Your task to perform on an android device: Set an alarm for 9am Image 0: 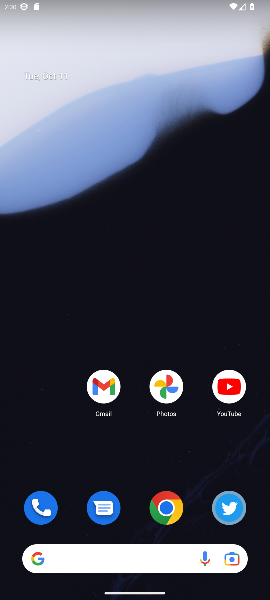
Step 0: drag from (209, 462) to (166, 240)
Your task to perform on an android device: Set an alarm for 9am Image 1: 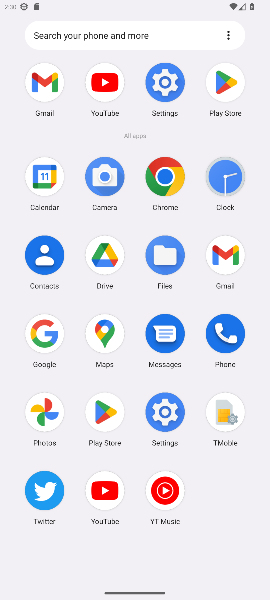
Step 1: click (225, 179)
Your task to perform on an android device: Set an alarm for 9am Image 2: 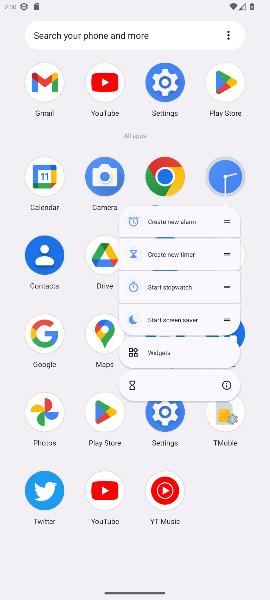
Step 2: click (226, 179)
Your task to perform on an android device: Set an alarm for 9am Image 3: 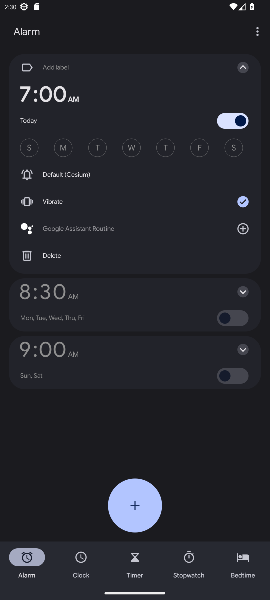
Step 3: click (136, 505)
Your task to perform on an android device: Set an alarm for 9am Image 4: 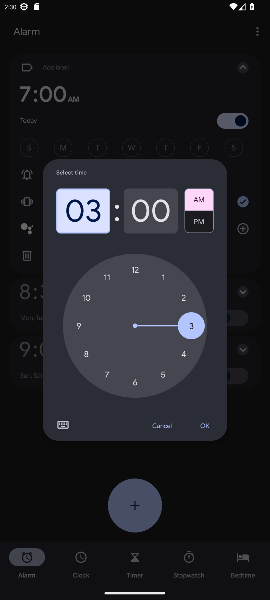
Step 4: click (81, 324)
Your task to perform on an android device: Set an alarm for 9am Image 5: 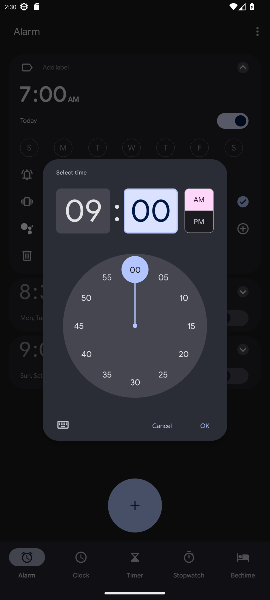
Step 5: click (206, 427)
Your task to perform on an android device: Set an alarm for 9am Image 6: 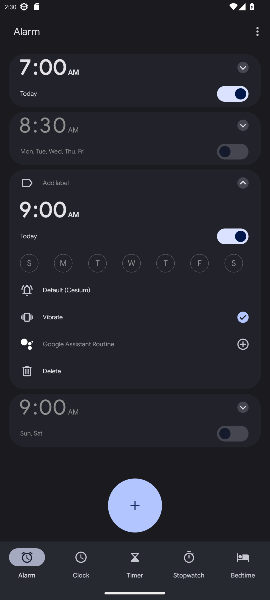
Step 6: task complete